Your task to perform on an android device: toggle data saver in the chrome app Image 0: 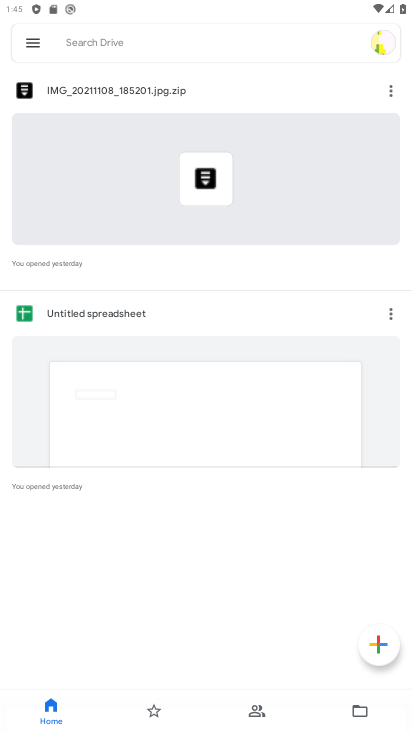
Step 0: press home button
Your task to perform on an android device: toggle data saver in the chrome app Image 1: 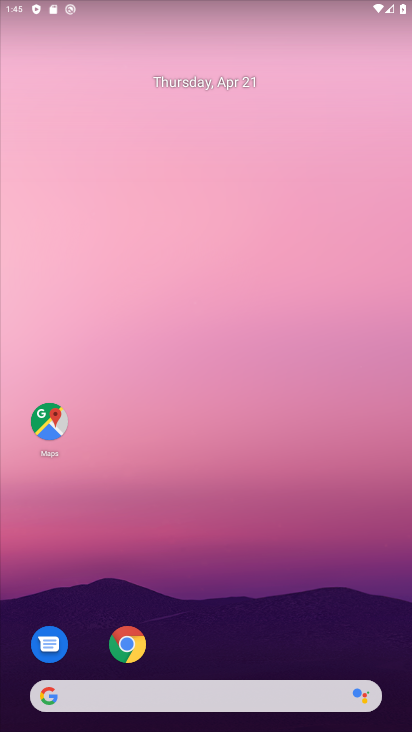
Step 1: click (122, 648)
Your task to perform on an android device: toggle data saver in the chrome app Image 2: 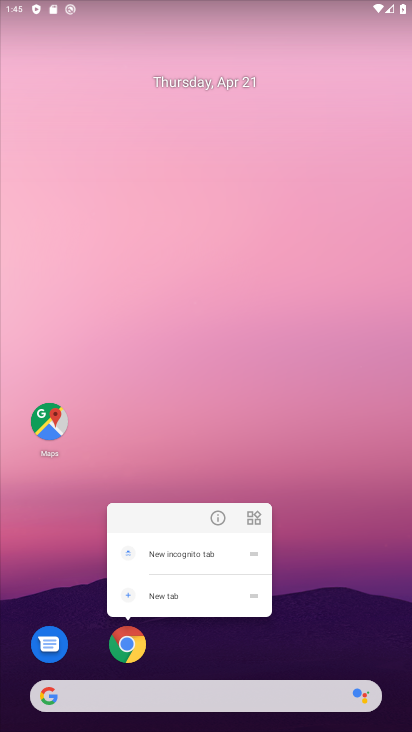
Step 2: click (122, 648)
Your task to perform on an android device: toggle data saver in the chrome app Image 3: 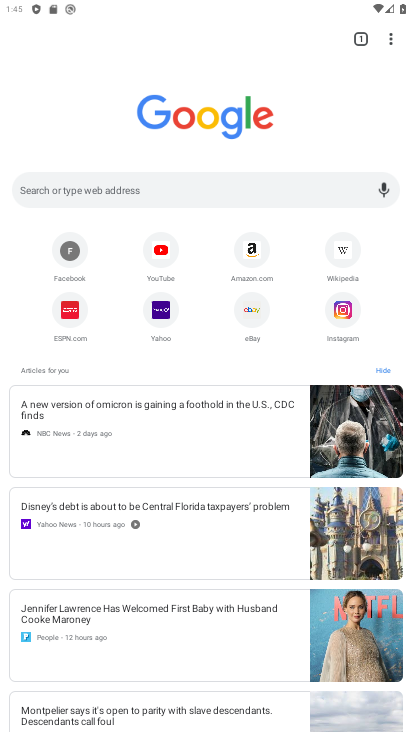
Step 3: drag from (397, 37) to (353, 369)
Your task to perform on an android device: toggle data saver in the chrome app Image 4: 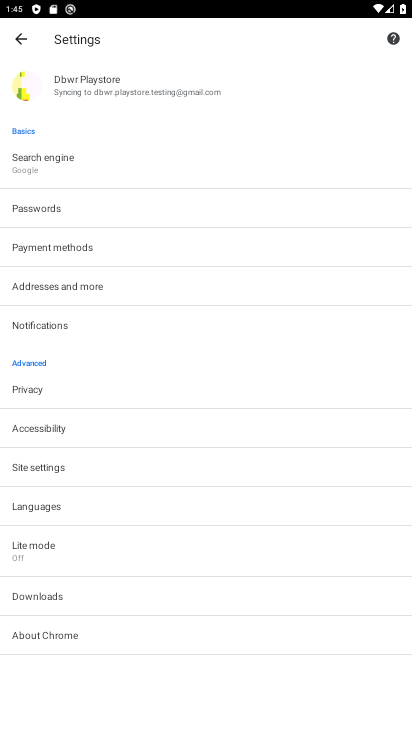
Step 4: click (168, 547)
Your task to perform on an android device: toggle data saver in the chrome app Image 5: 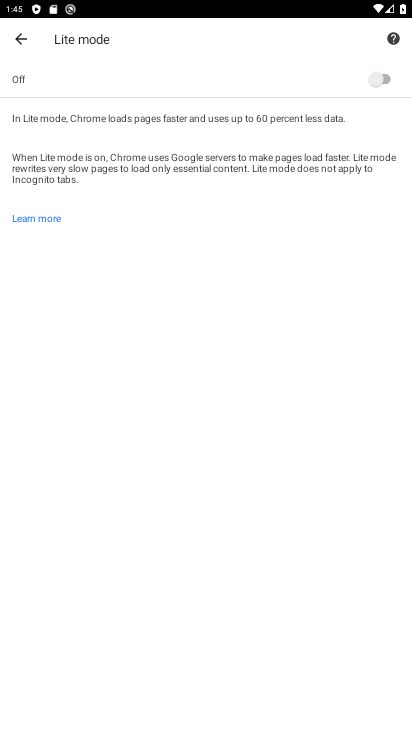
Step 5: click (387, 79)
Your task to perform on an android device: toggle data saver in the chrome app Image 6: 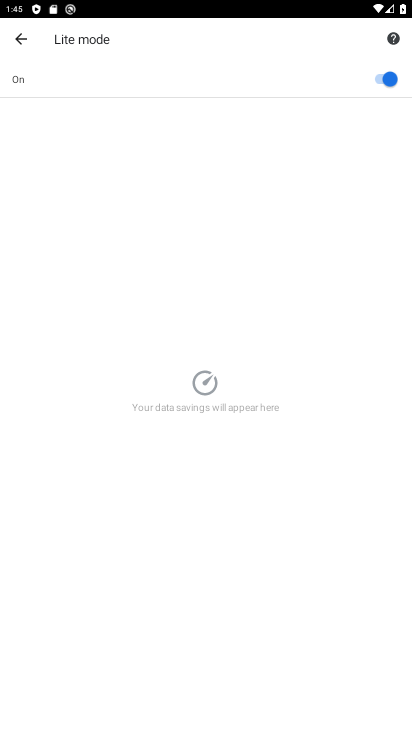
Step 6: task complete